Your task to perform on an android device: Clear the cart on walmart.com. Search for bose soundlink mini on walmart.com, select the first entry, and add it to the cart. Image 0: 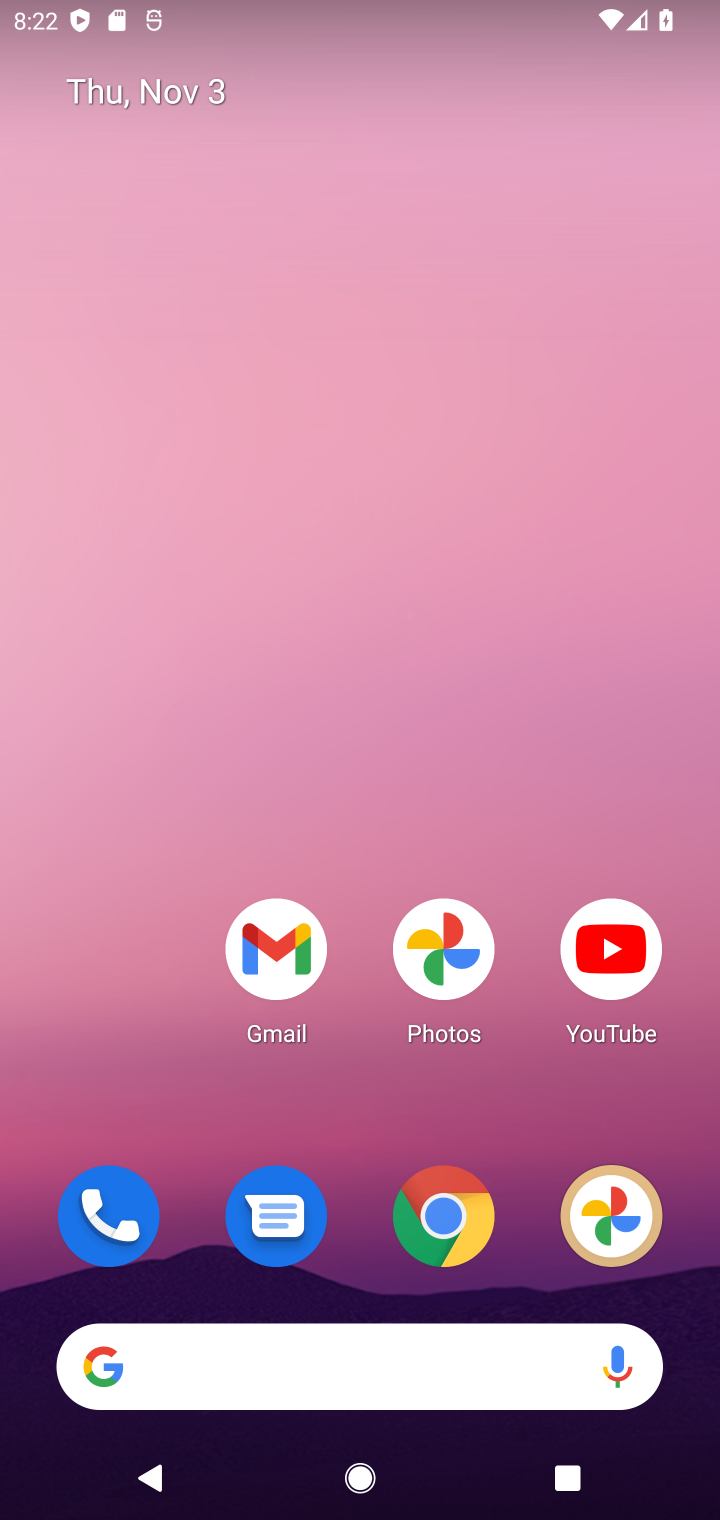
Step 0: click (427, 1240)
Your task to perform on an android device: Clear the cart on walmart.com. Search for bose soundlink mini on walmart.com, select the first entry, and add it to the cart. Image 1: 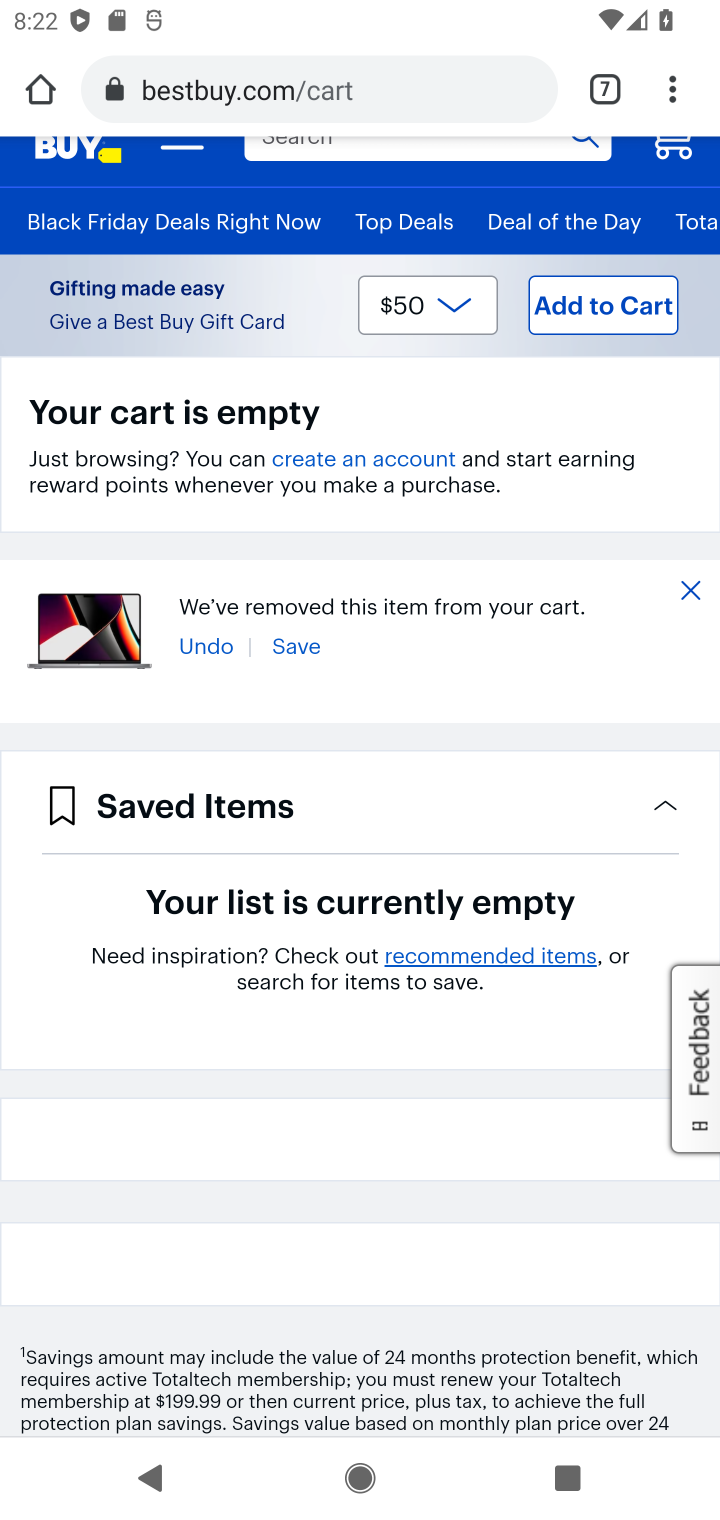
Step 1: click (607, 93)
Your task to perform on an android device: Clear the cart on walmart.com. Search for bose soundlink mini on walmart.com, select the first entry, and add it to the cart. Image 2: 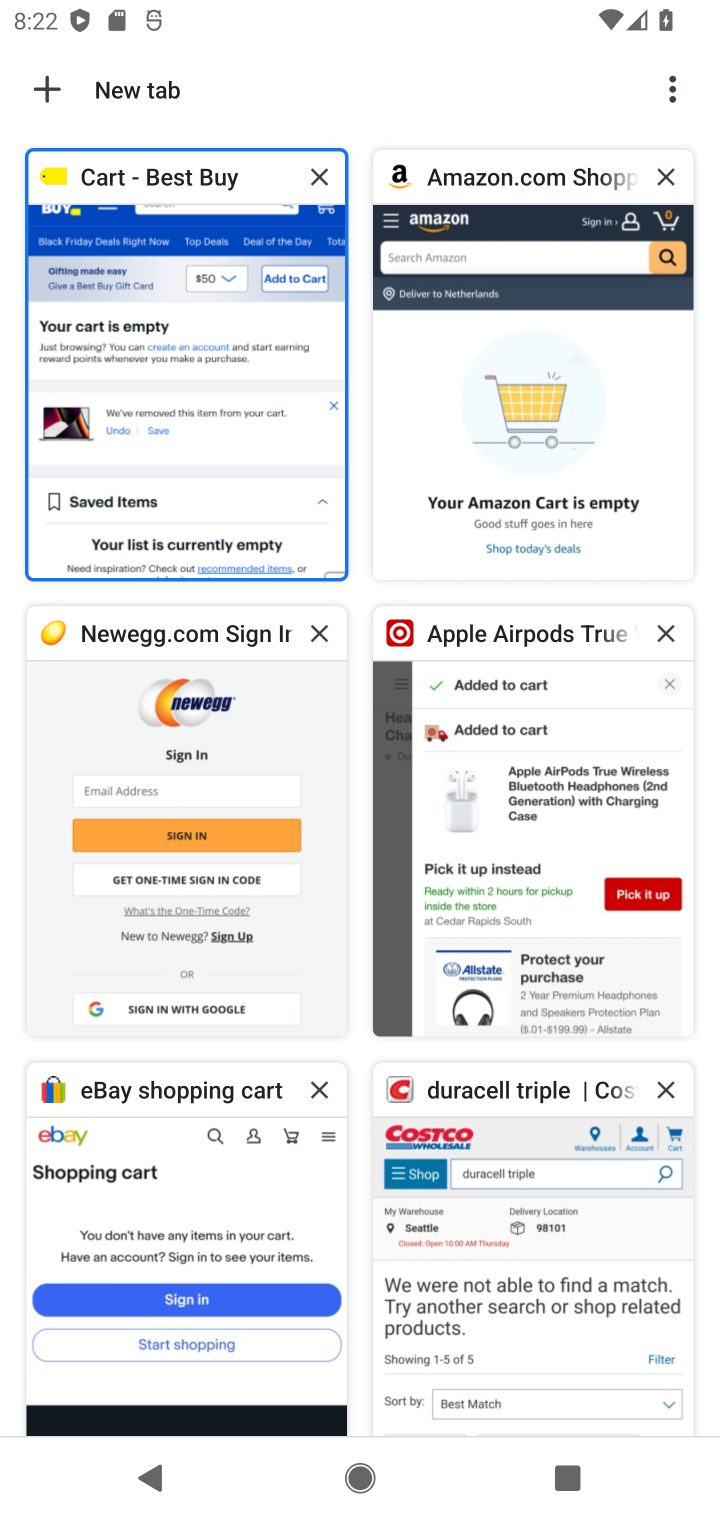
Step 2: drag from (395, 1285) to (333, 690)
Your task to perform on an android device: Clear the cart on walmart.com. Search for bose soundlink mini on walmart.com, select the first entry, and add it to the cart. Image 3: 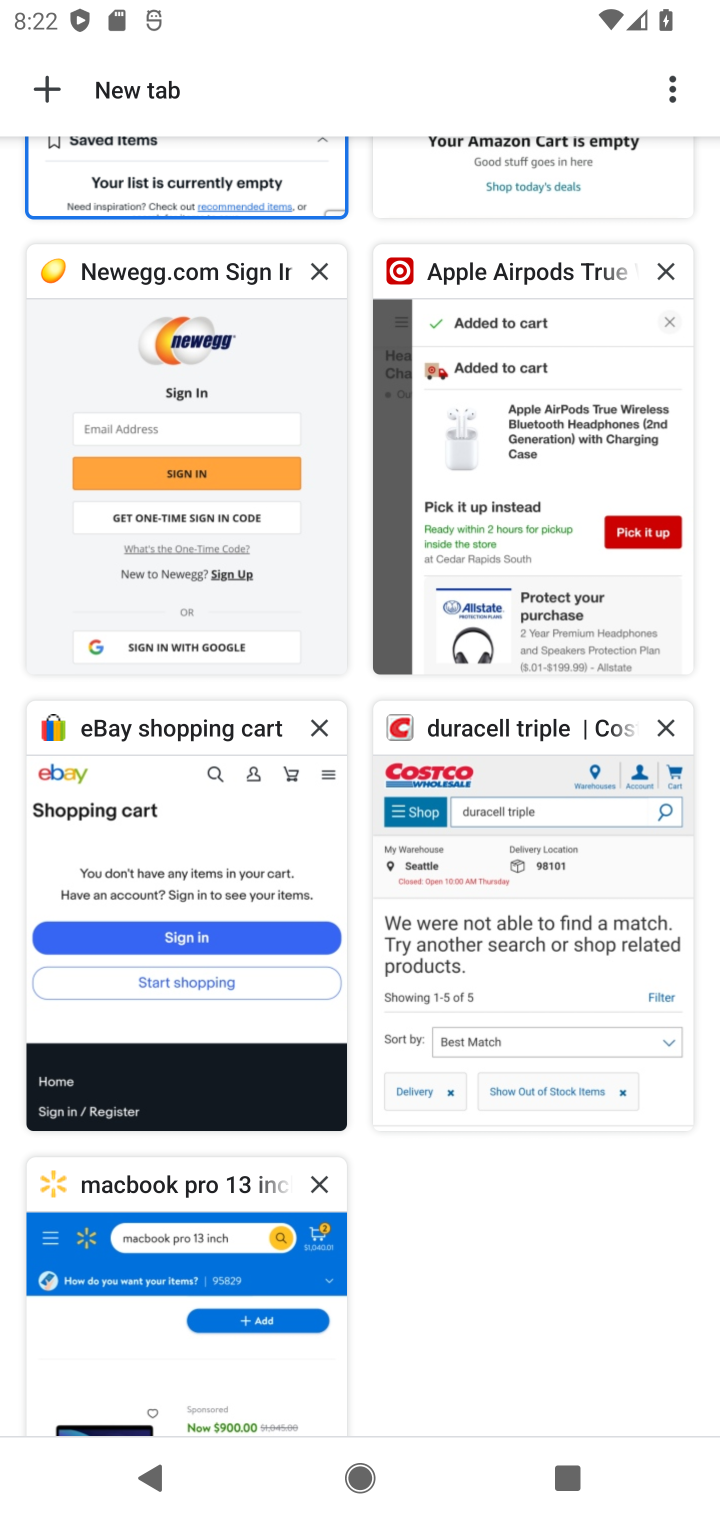
Step 3: click (200, 1304)
Your task to perform on an android device: Clear the cart on walmart.com. Search for bose soundlink mini on walmart.com, select the first entry, and add it to the cart. Image 4: 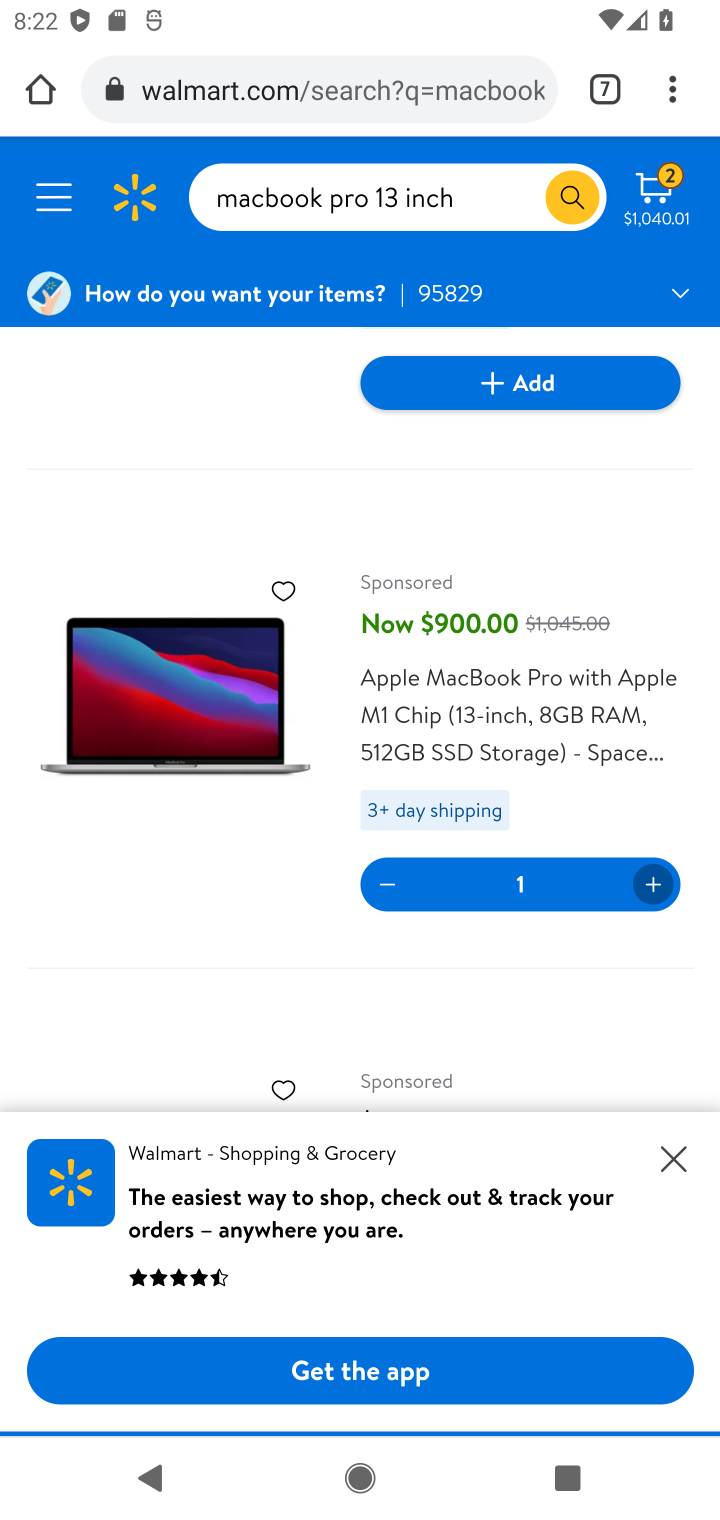
Step 4: click (657, 191)
Your task to perform on an android device: Clear the cart on walmart.com. Search for bose soundlink mini on walmart.com, select the first entry, and add it to the cart. Image 5: 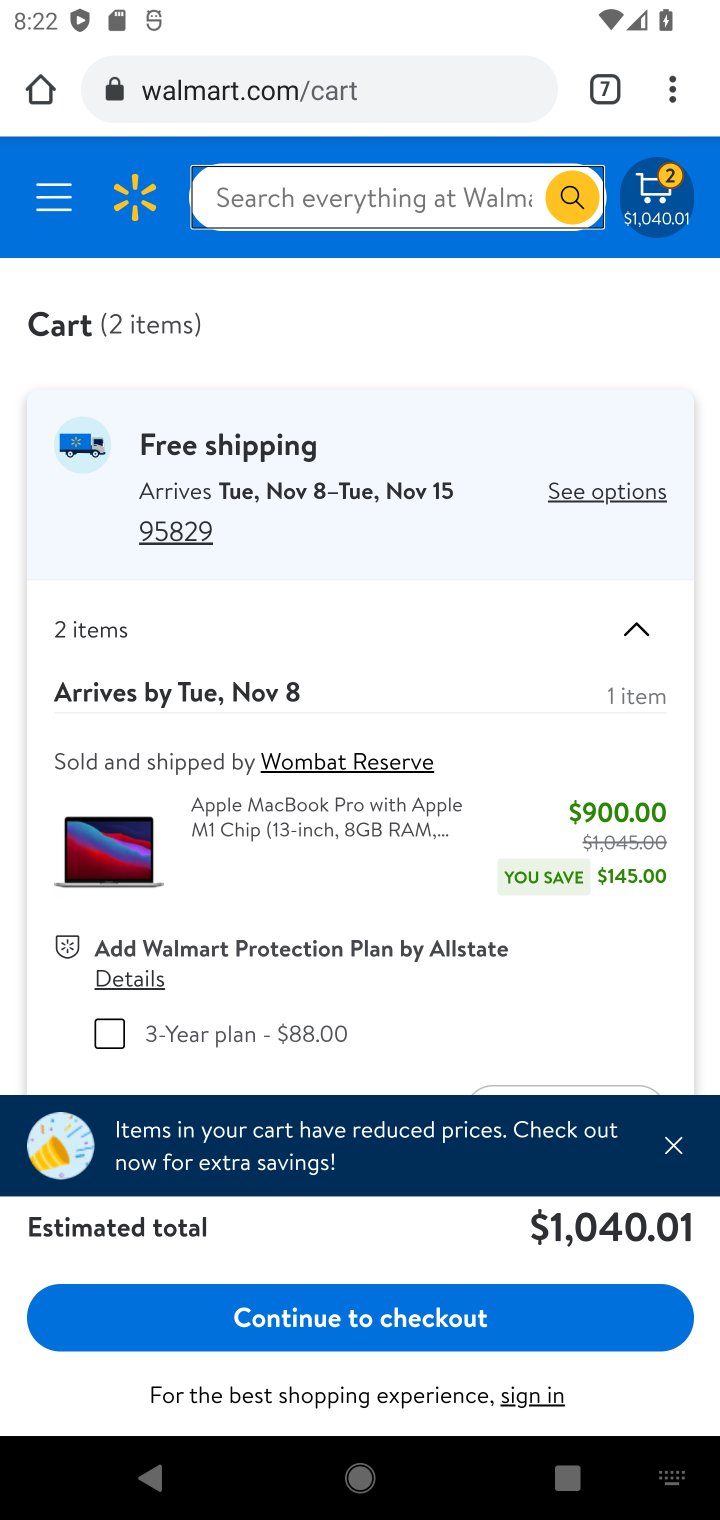
Step 5: drag from (395, 1021) to (290, 559)
Your task to perform on an android device: Clear the cart on walmart.com. Search for bose soundlink mini on walmart.com, select the first entry, and add it to the cart. Image 6: 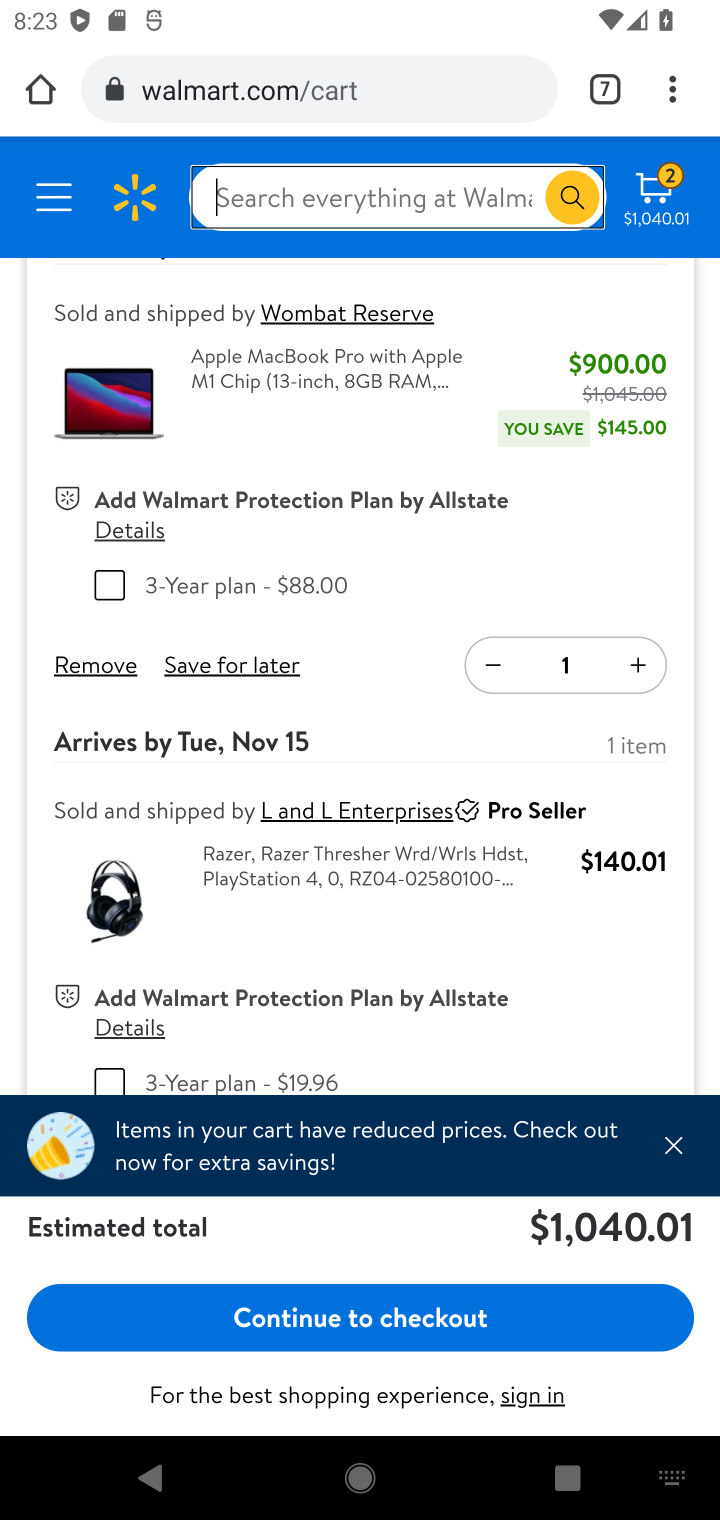
Step 6: click (90, 668)
Your task to perform on an android device: Clear the cart on walmart.com. Search for bose soundlink mini on walmart.com, select the first entry, and add it to the cart. Image 7: 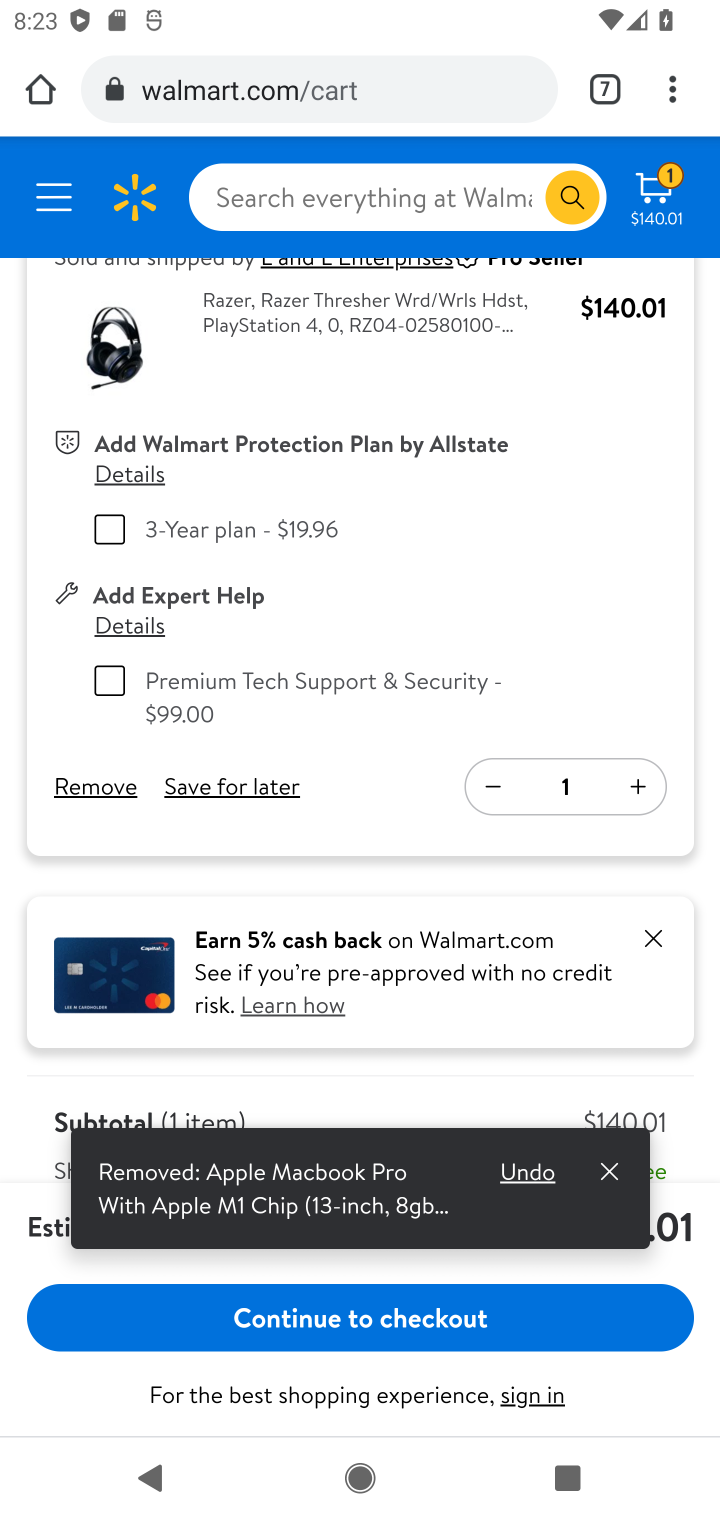
Step 7: click (117, 789)
Your task to perform on an android device: Clear the cart on walmart.com. Search for bose soundlink mini on walmart.com, select the first entry, and add it to the cart. Image 8: 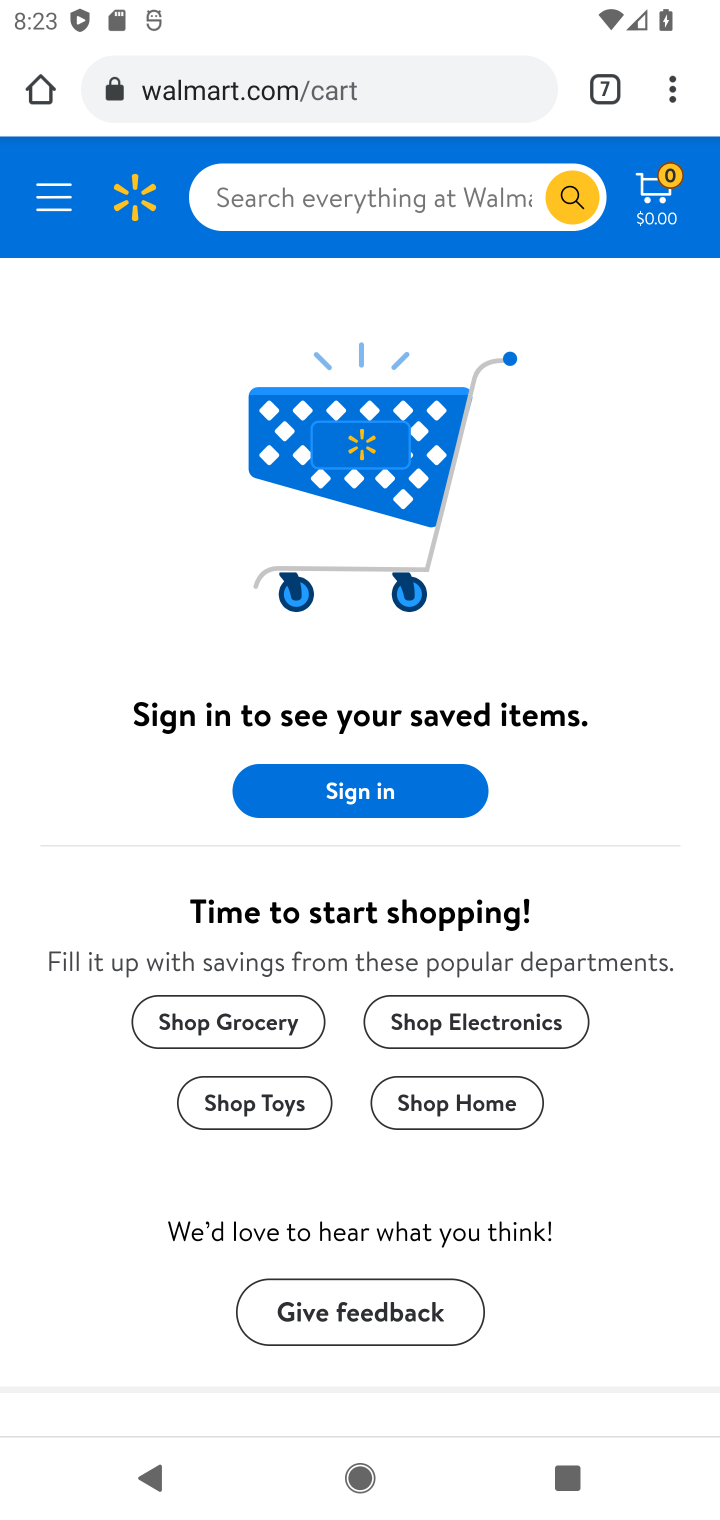
Step 8: click (351, 194)
Your task to perform on an android device: Clear the cart on walmart.com. Search for bose soundlink mini on walmart.com, select the first entry, and add it to the cart. Image 9: 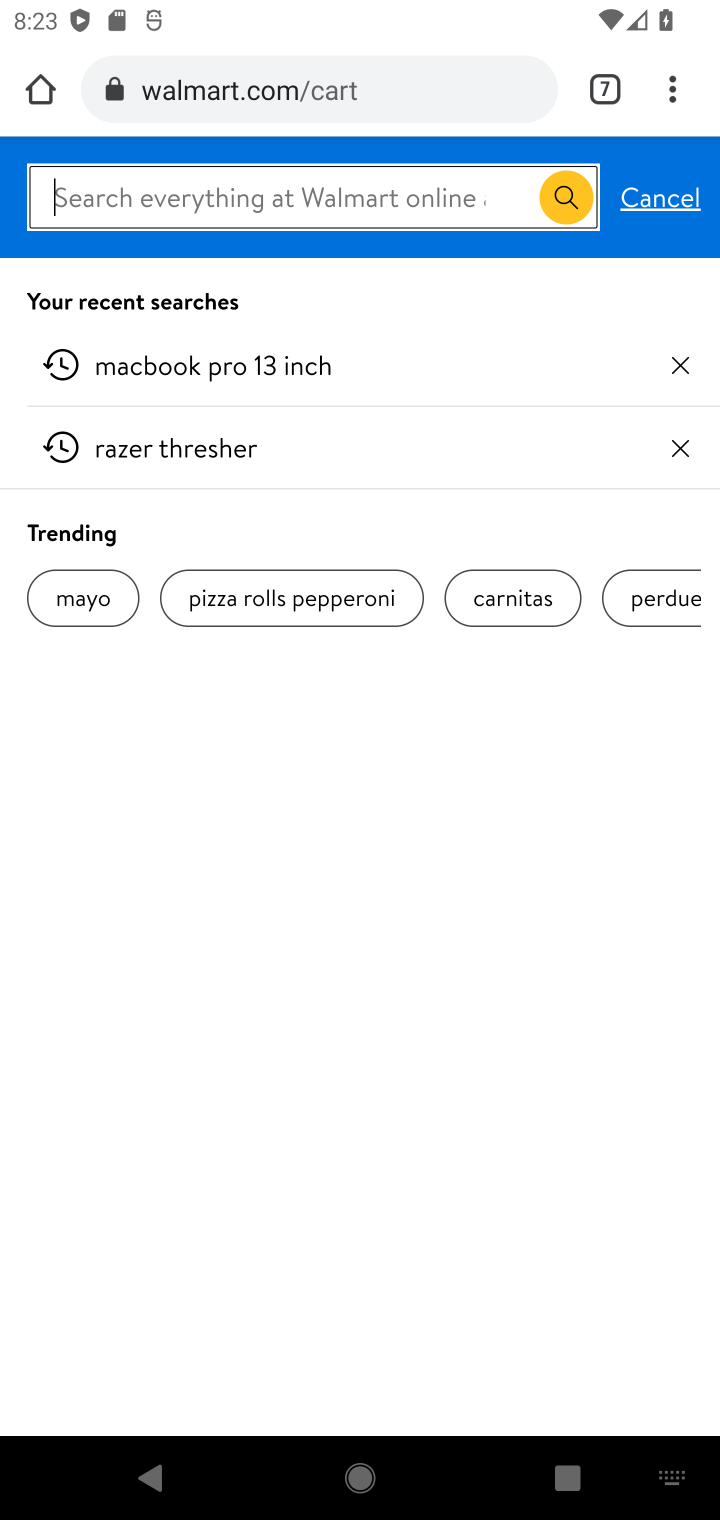
Step 9: type "bose soundlink mini "
Your task to perform on an android device: Clear the cart on walmart.com. Search for bose soundlink mini on walmart.com, select the first entry, and add it to the cart. Image 10: 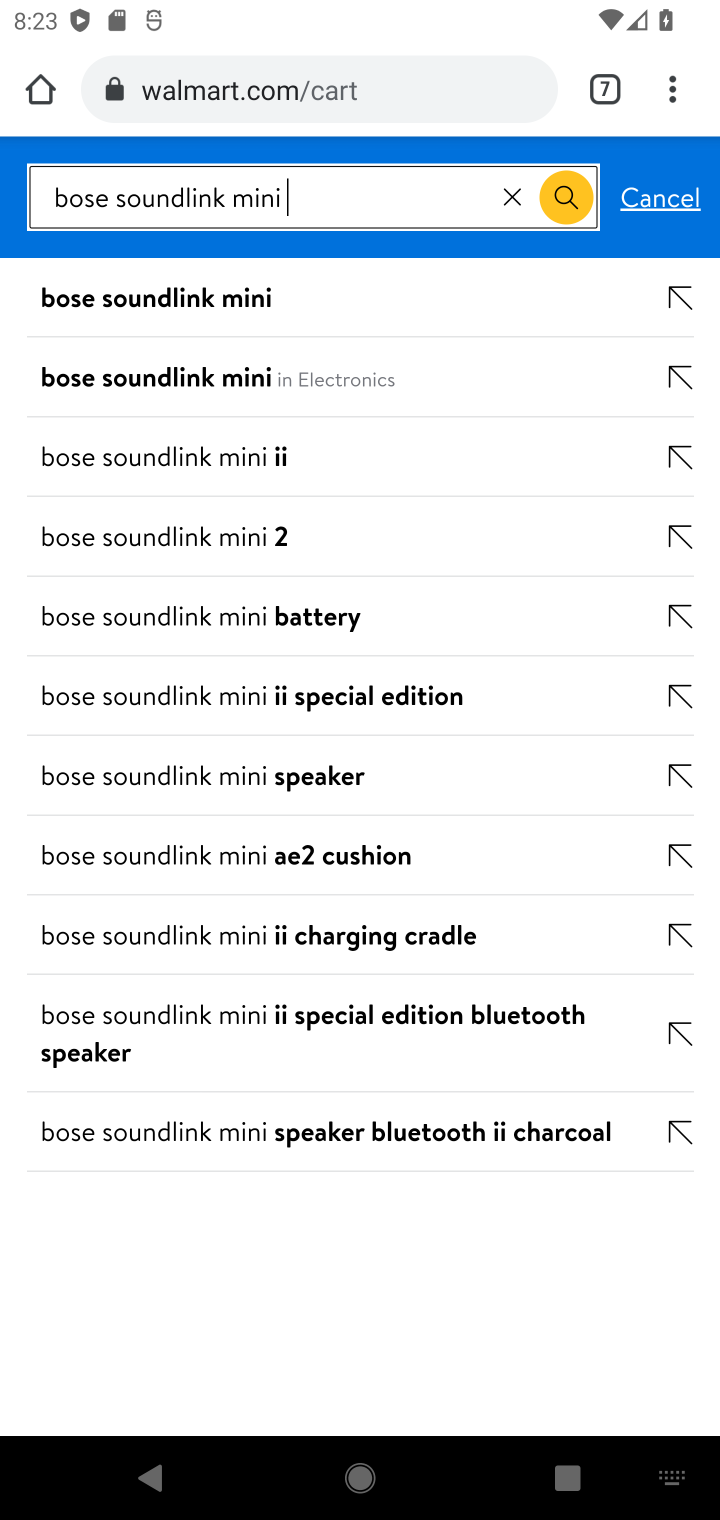
Step 10: click (580, 210)
Your task to perform on an android device: Clear the cart on walmart.com. Search for bose soundlink mini on walmart.com, select the first entry, and add it to the cart. Image 11: 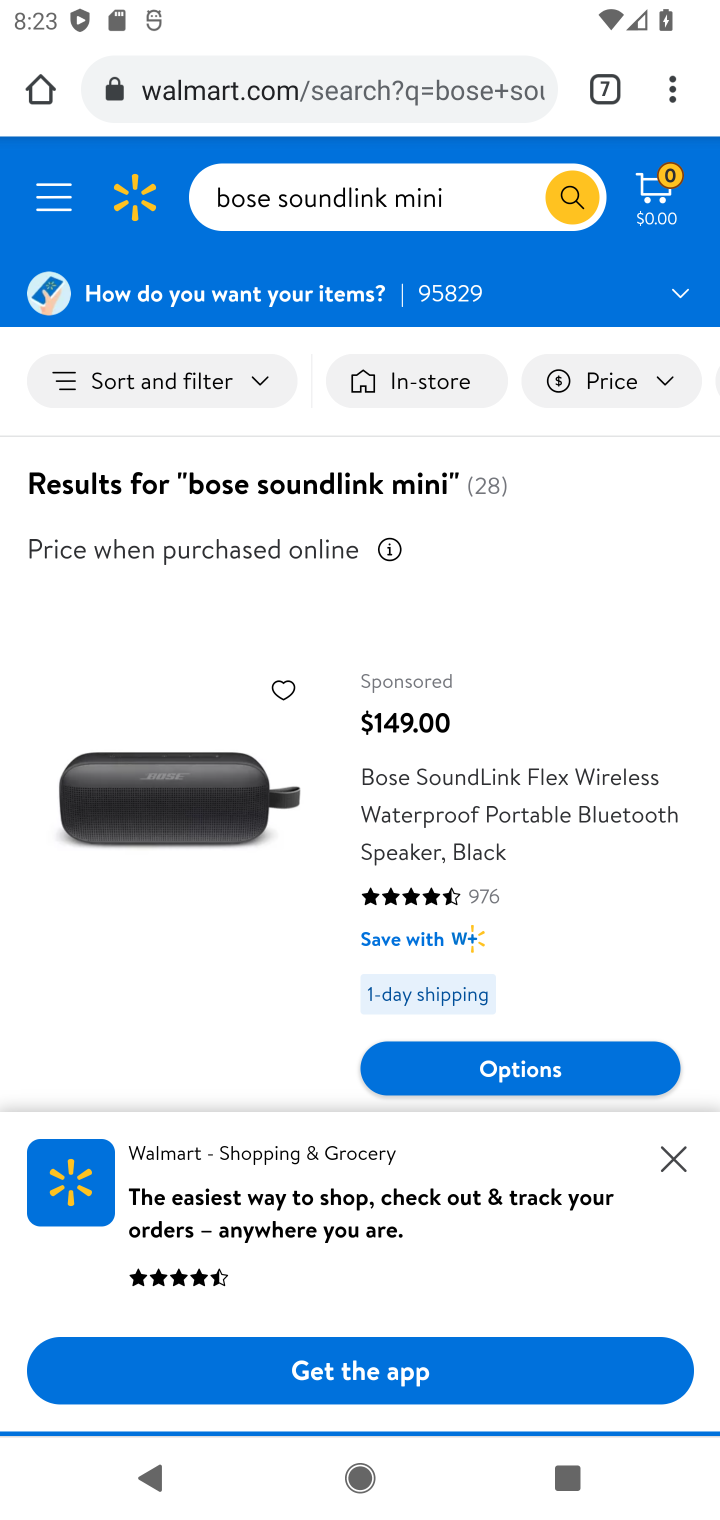
Step 11: drag from (255, 948) to (172, 397)
Your task to perform on an android device: Clear the cart on walmart.com. Search for bose soundlink mini on walmart.com, select the first entry, and add it to the cart. Image 12: 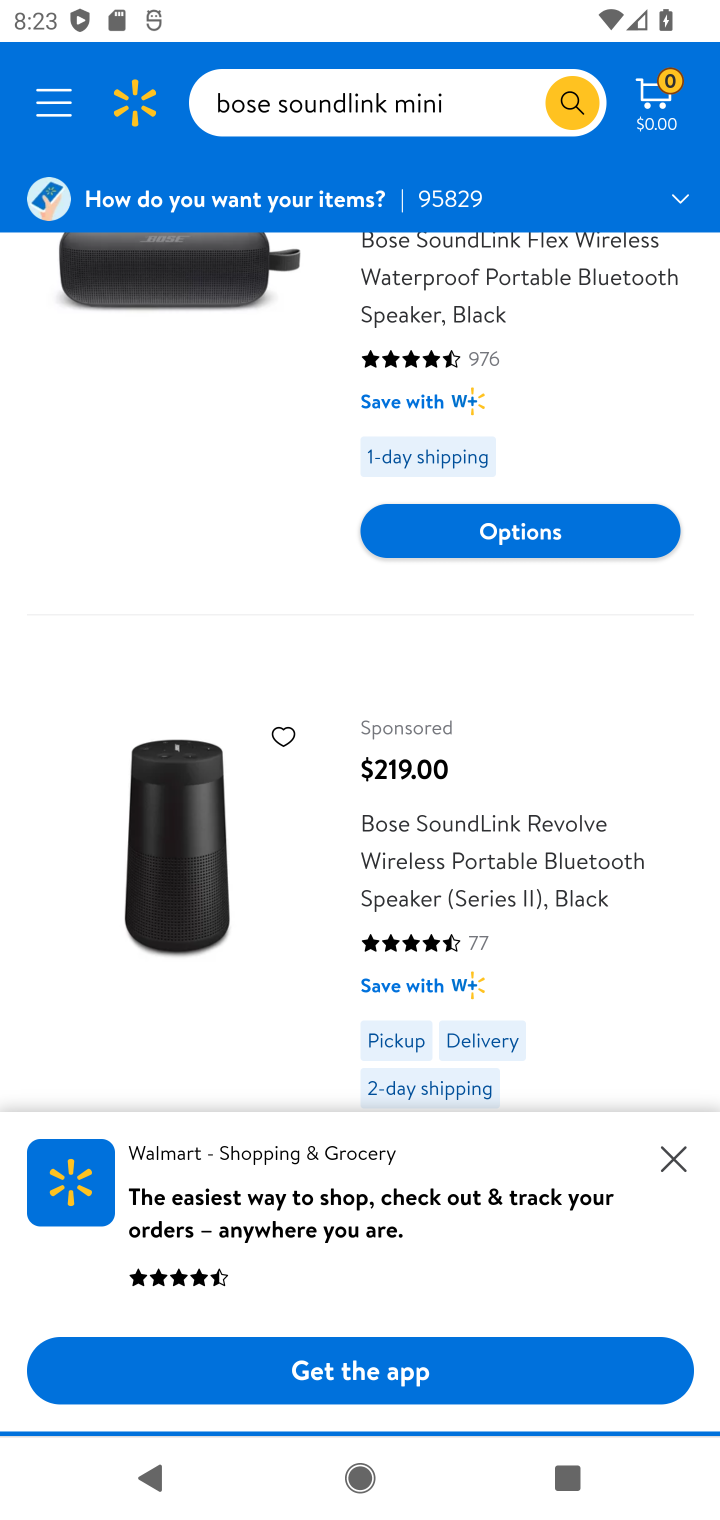
Step 12: click (678, 1161)
Your task to perform on an android device: Clear the cart on walmart.com. Search for bose soundlink mini on walmart.com, select the first entry, and add it to the cart. Image 13: 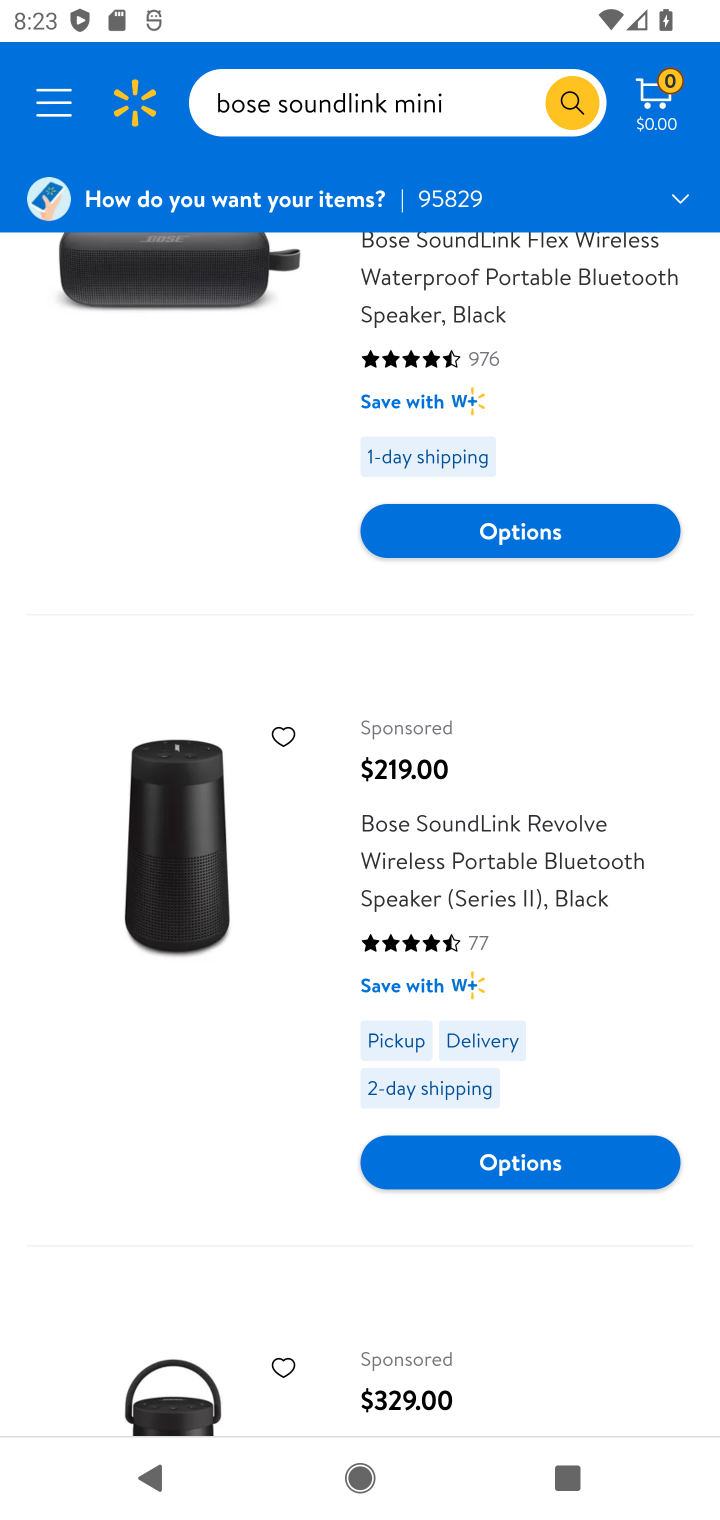
Step 13: task complete